Your task to perform on an android device: toggle airplane mode Image 0: 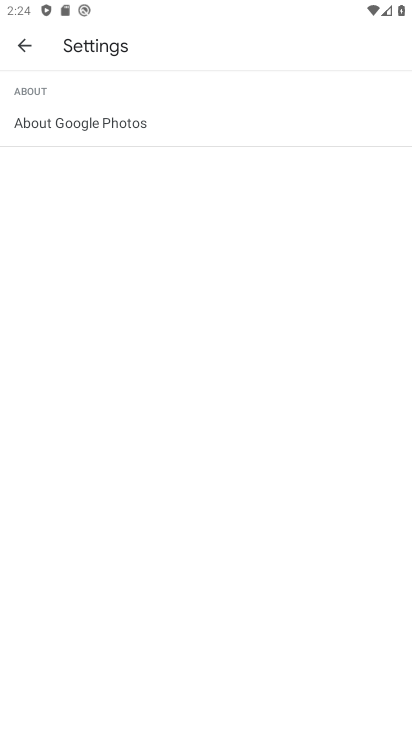
Step 0: press home button
Your task to perform on an android device: toggle airplane mode Image 1: 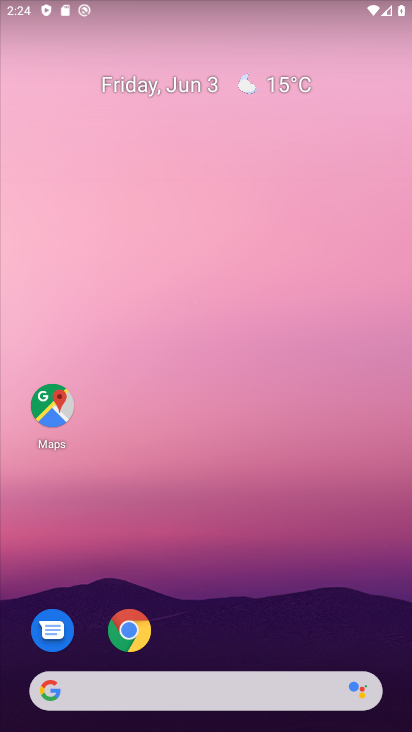
Step 1: drag from (365, 5) to (325, 393)
Your task to perform on an android device: toggle airplane mode Image 2: 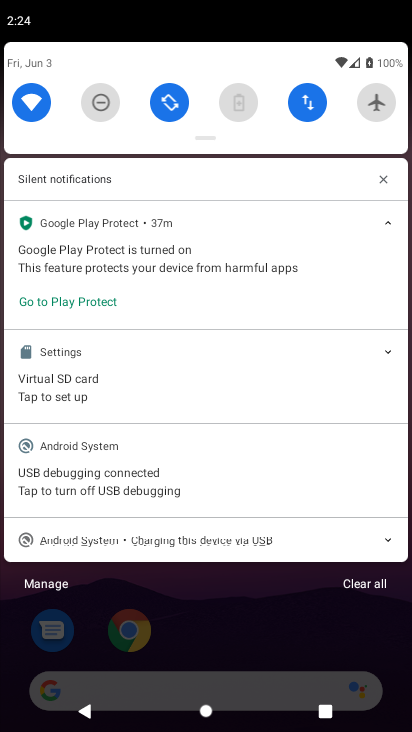
Step 2: click (370, 94)
Your task to perform on an android device: toggle airplane mode Image 3: 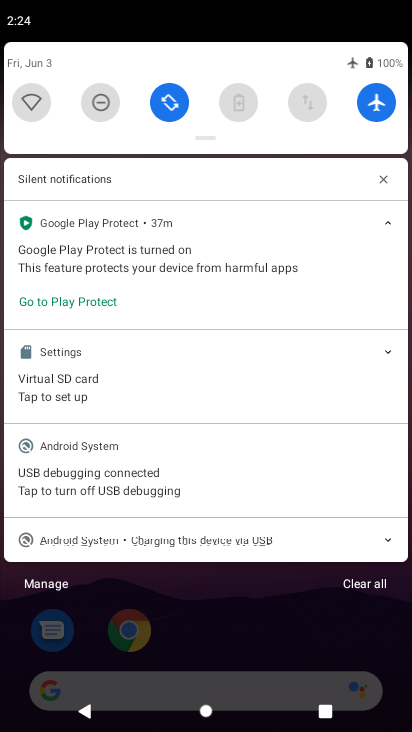
Step 3: task complete